Your task to perform on an android device: Do I have any events tomorrow? Image 0: 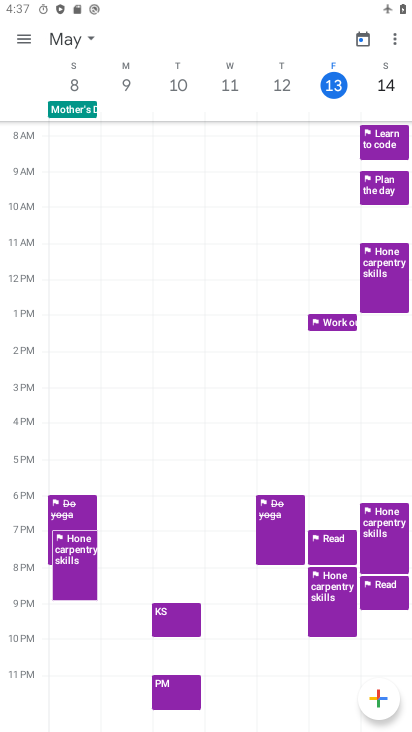
Step 0: click (394, 89)
Your task to perform on an android device: Do I have any events tomorrow? Image 1: 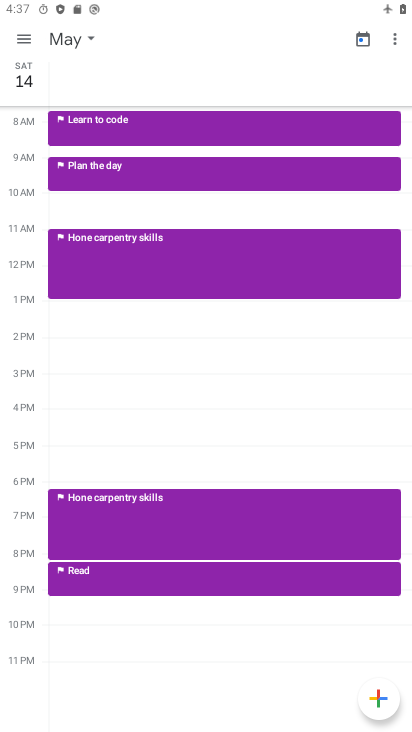
Step 1: task complete